Your task to perform on an android device: Go to calendar. Show me events next week Image 0: 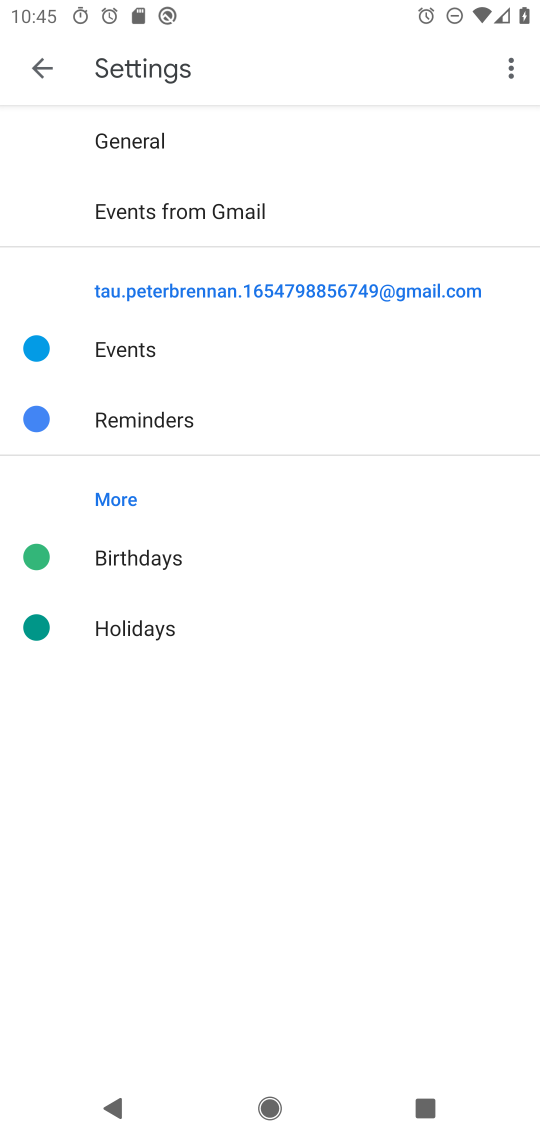
Step 0: press home button
Your task to perform on an android device: Go to calendar. Show me events next week Image 1: 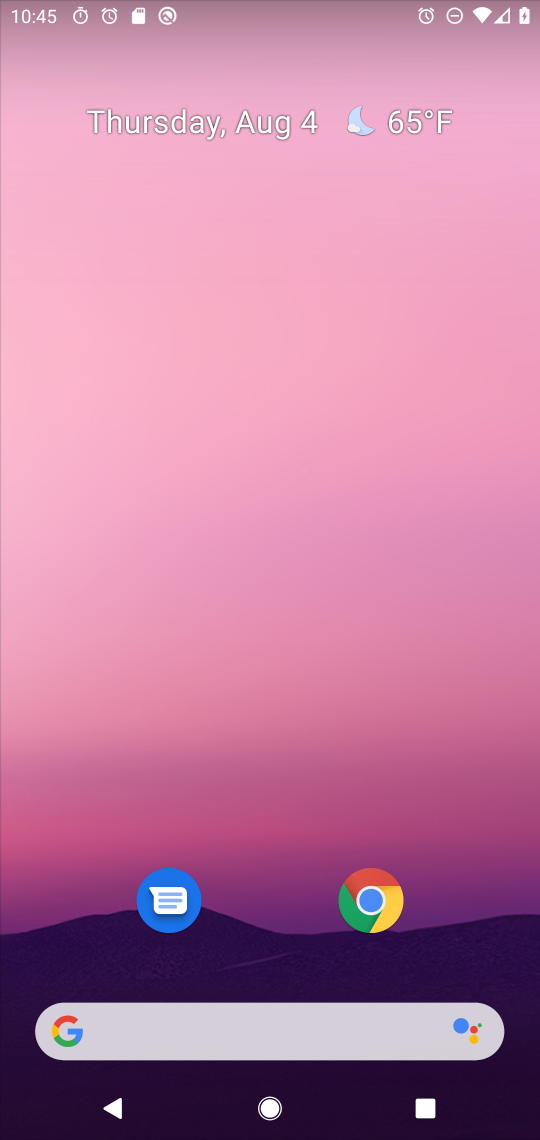
Step 1: drag from (220, 1037) to (293, 314)
Your task to perform on an android device: Go to calendar. Show me events next week Image 2: 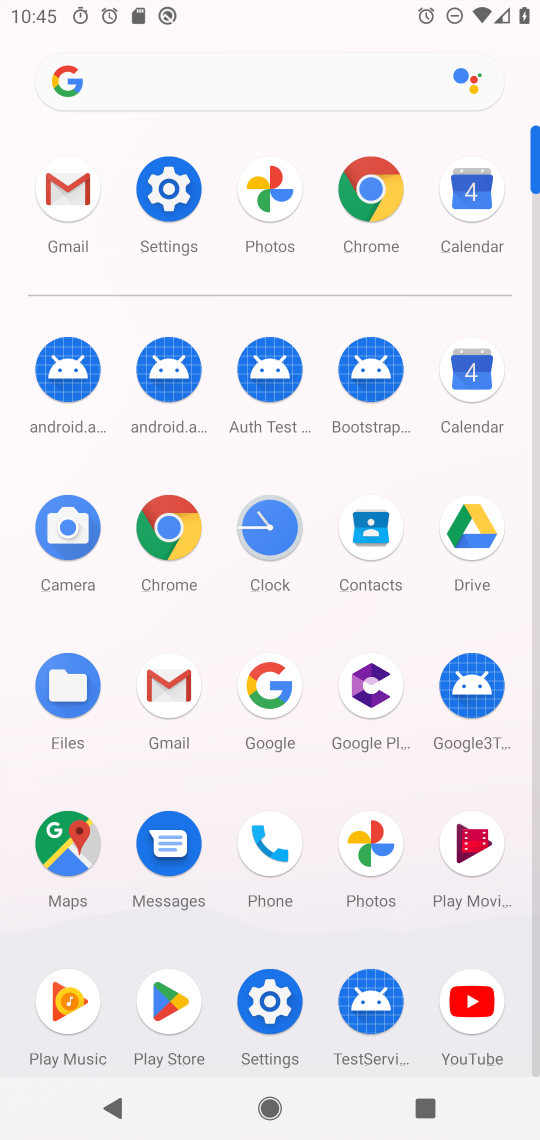
Step 2: click (473, 186)
Your task to perform on an android device: Go to calendar. Show me events next week Image 3: 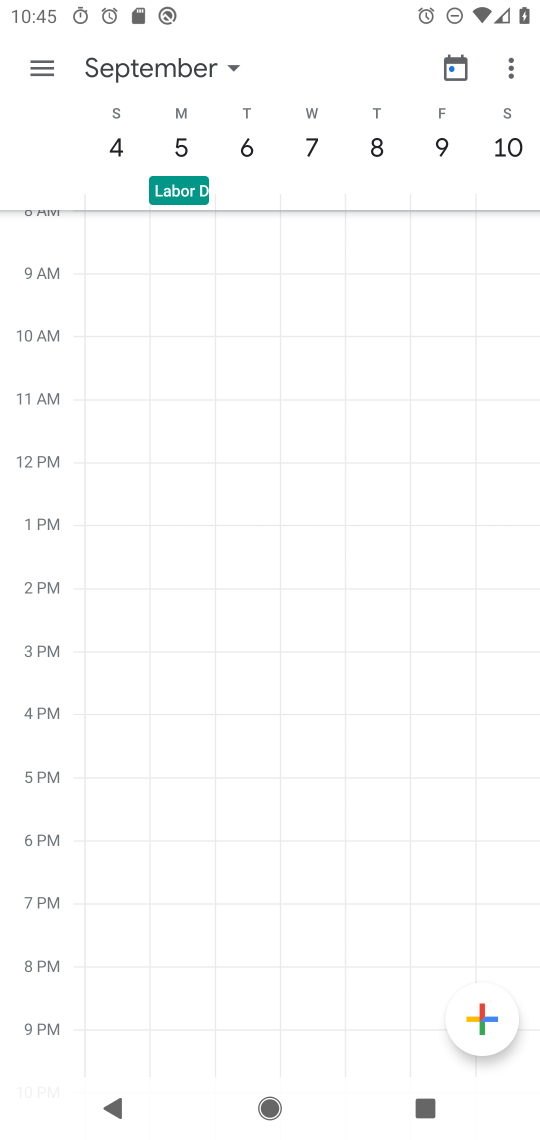
Step 3: click (455, 71)
Your task to perform on an android device: Go to calendar. Show me events next week Image 4: 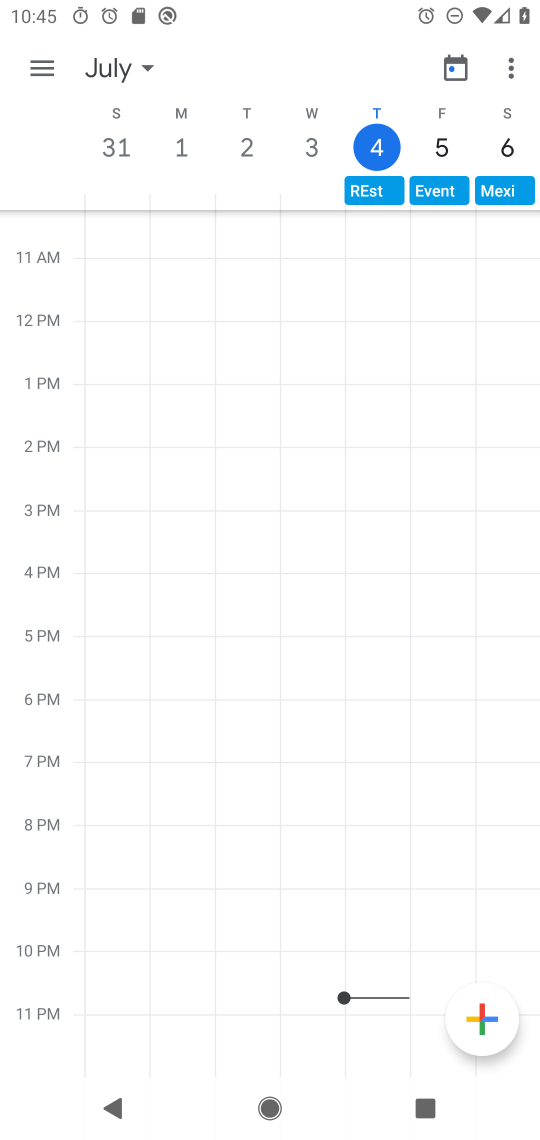
Step 4: click (147, 74)
Your task to perform on an android device: Go to calendar. Show me events next week Image 5: 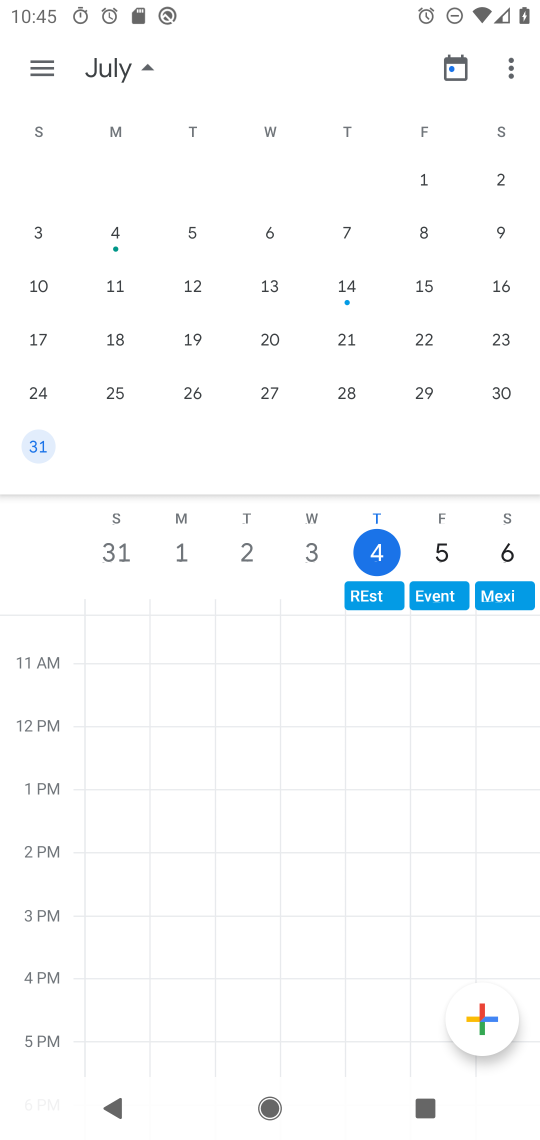
Step 5: drag from (513, 301) to (13, 264)
Your task to perform on an android device: Go to calendar. Show me events next week Image 6: 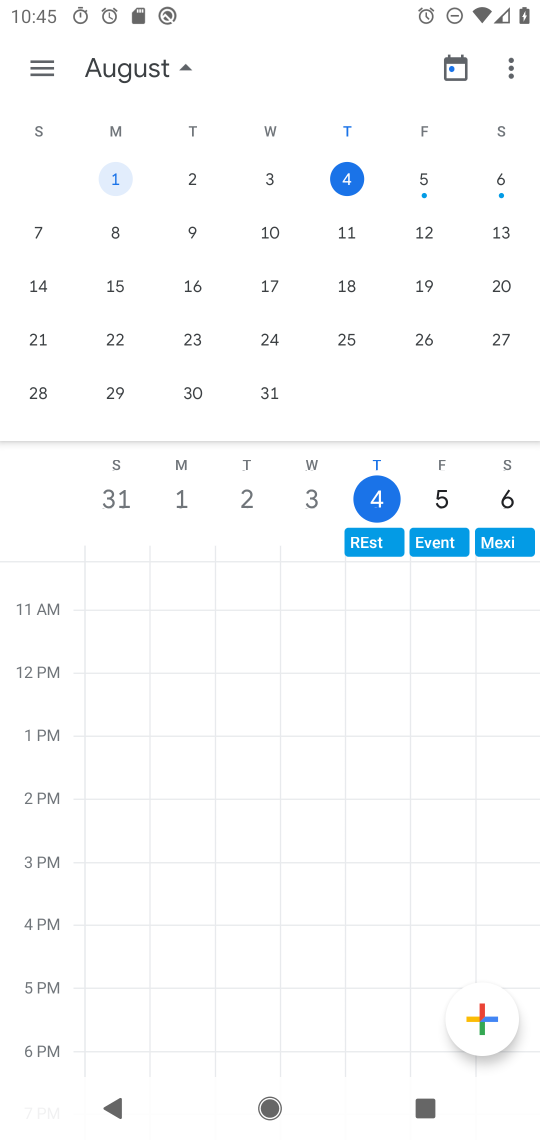
Step 6: click (135, 242)
Your task to perform on an android device: Go to calendar. Show me events next week Image 7: 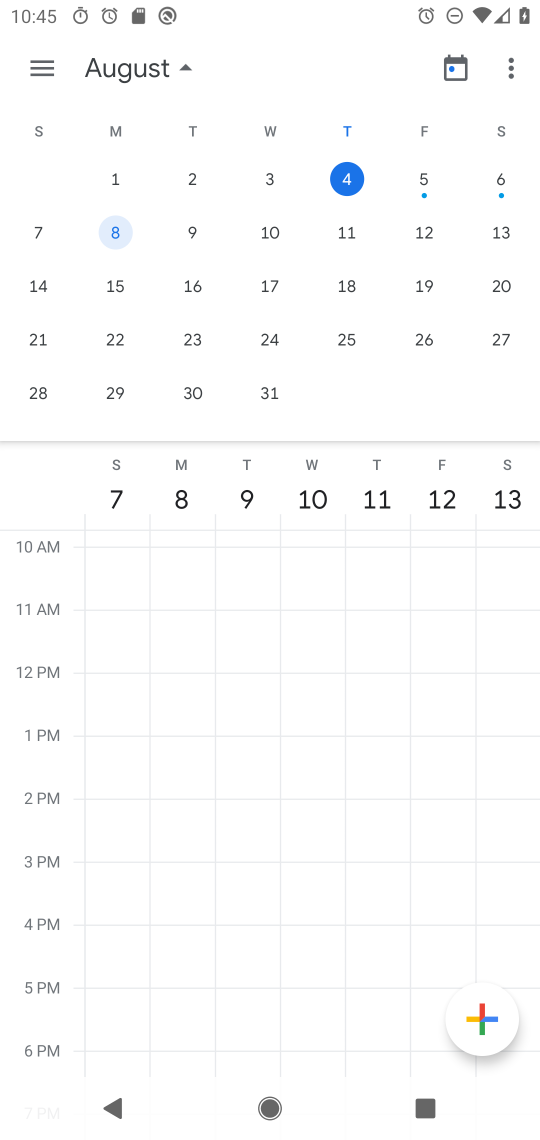
Step 7: click (33, 69)
Your task to perform on an android device: Go to calendar. Show me events next week Image 8: 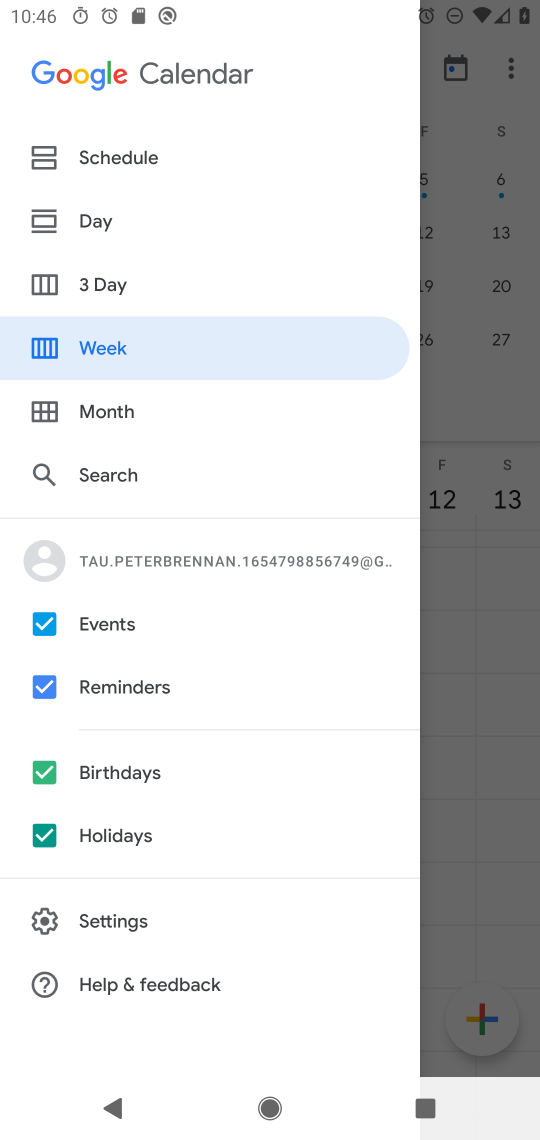
Step 8: click (95, 333)
Your task to perform on an android device: Go to calendar. Show me events next week Image 9: 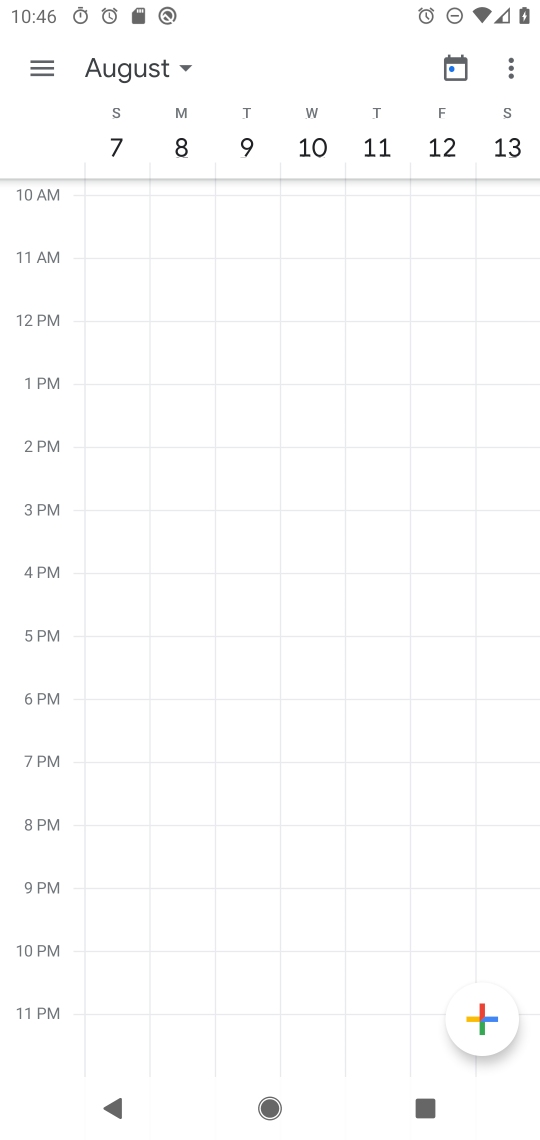
Step 9: task complete